Your task to perform on an android device: What's the weather going to be tomorrow? Image 0: 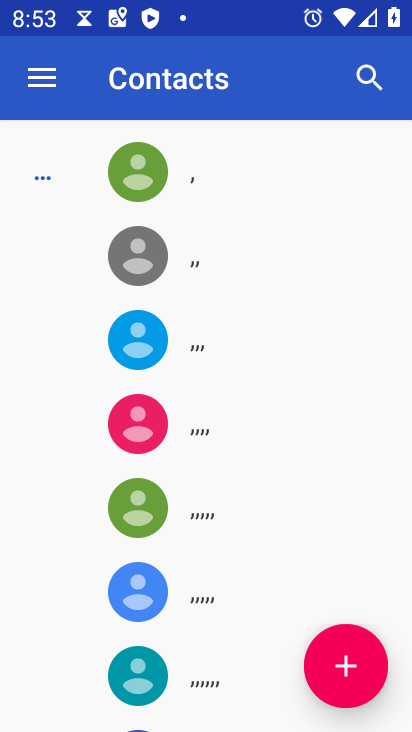
Step 0: press back button
Your task to perform on an android device: What's the weather going to be tomorrow? Image 1: 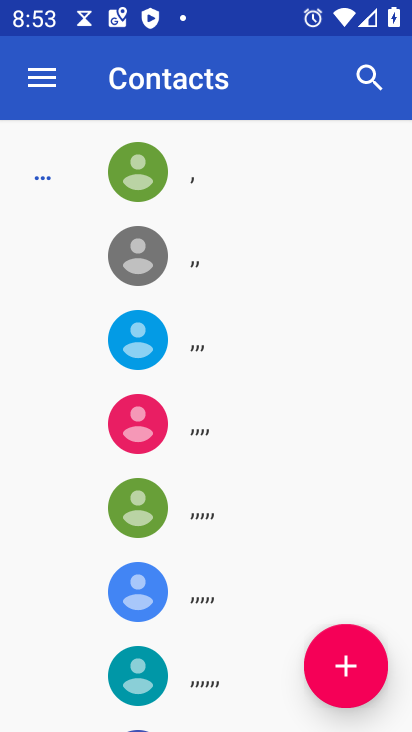
Step 1: press back button
Your task to perform on an android device: What's the weather going to be tomorrow? Image 2: 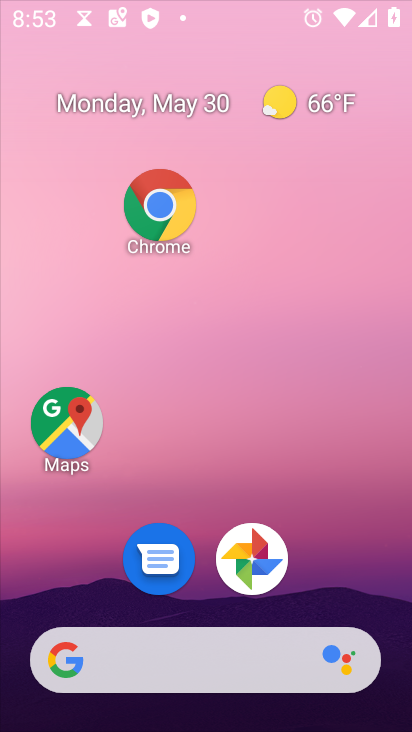
Step 2: press back button
Your task to perform on an android device: What's the weather going to be tomorrow? Image 3: 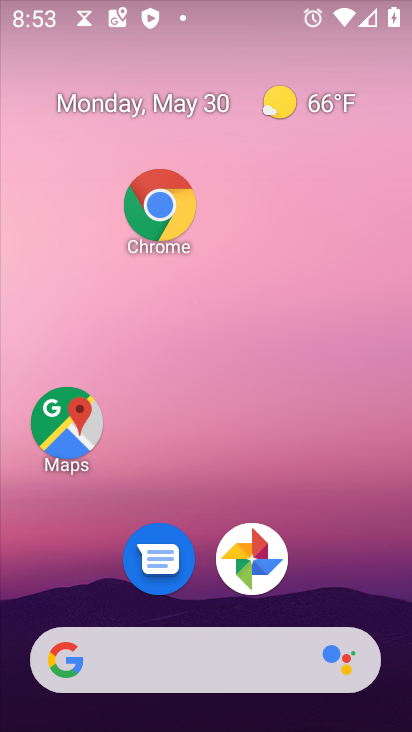
Step 3: press back button
Your task to perform on an android device: What's the weather going to be tomorrow? Image 4: 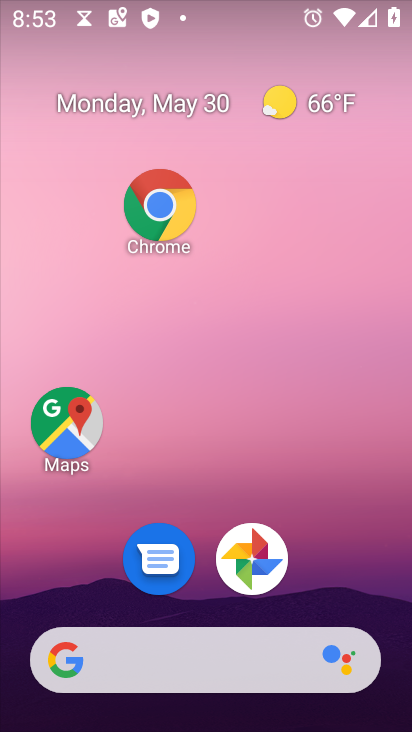
Step 4: drag from (68, 214) to (406, 470)
Your task to perform on an android device: What's the weather going to be tomorrow? Image 5: 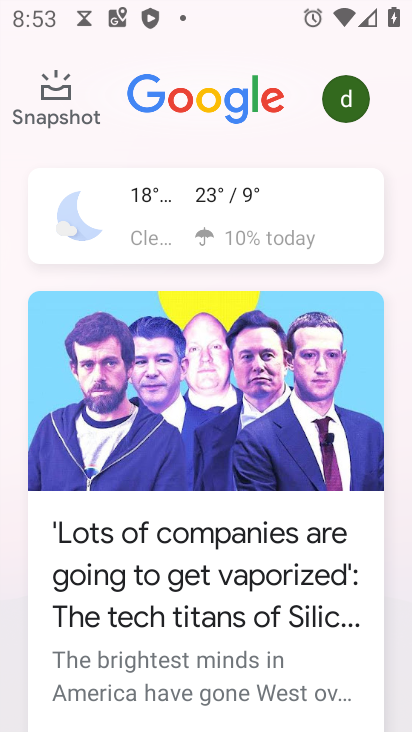
Step 5: click (190, 221)
Your task to perform on an android device: What's the weather going to be tomorrow? Image 6: 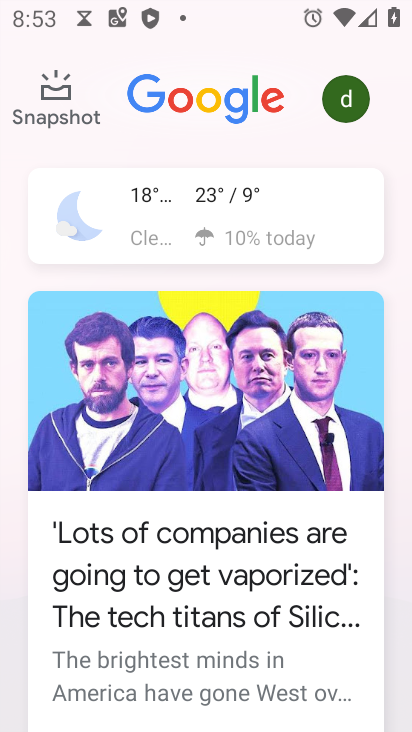
Step 6: click (189, 222)
Your task to perform on an android device: What's the weather going to be tomorrow? Image 7: 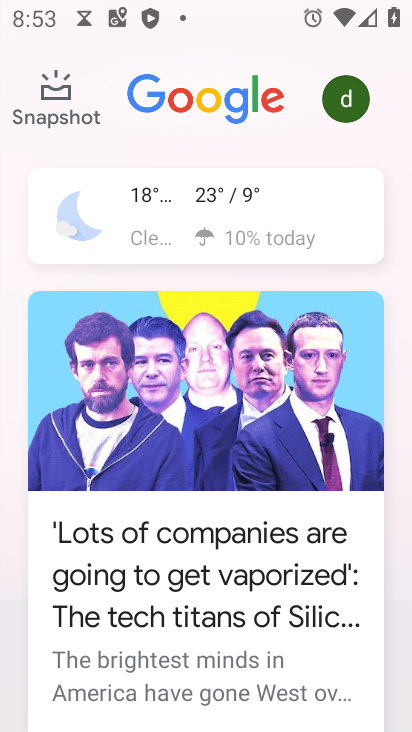
Step 7: click (197, 225)
Your task to perform on an android device: What's the weather going to be tomorrow? Image 8: 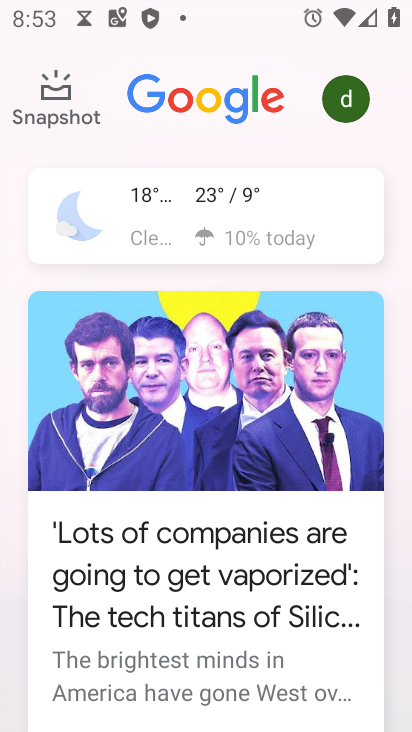
Step 8: click (202, 223)
Your task to perform on an android device: What's the weather going to be tomorrow? Image 9: 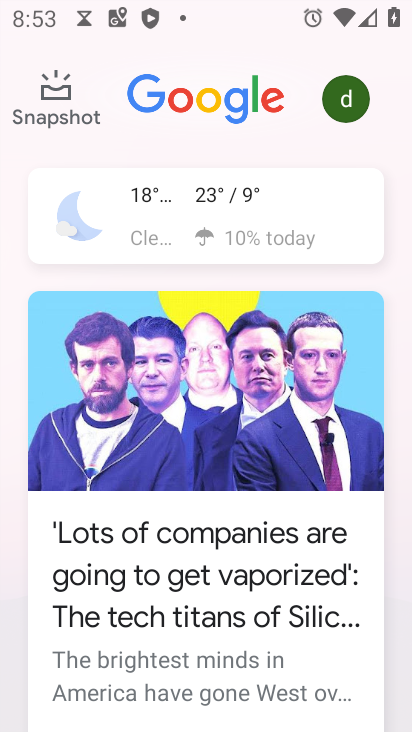
Step 9: click (202, 223)
Your task to perform on an android device: What's the weather going to be tomorrow? Image 10: 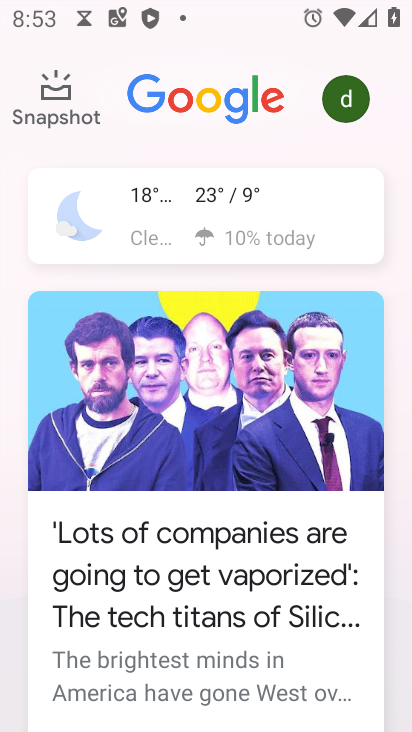
Step 10: click (202, 223)
Your task to perform on an android device: What's the weather going to be tomorrow? Image 11: 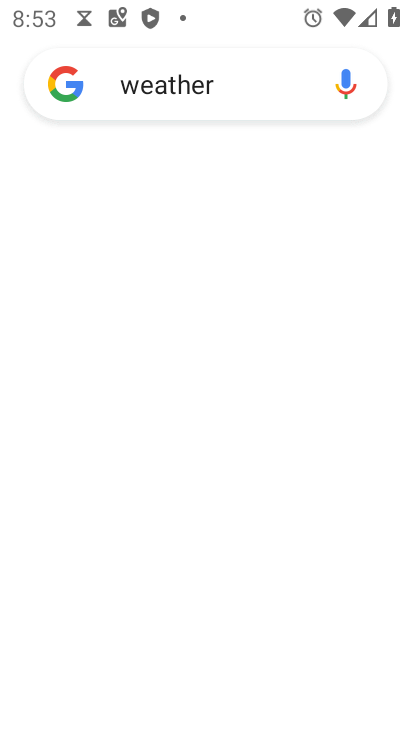
Step 11: click (205, 221)
Your task to perform on an android device: What's the weather going to be tomorrow? Image 12: 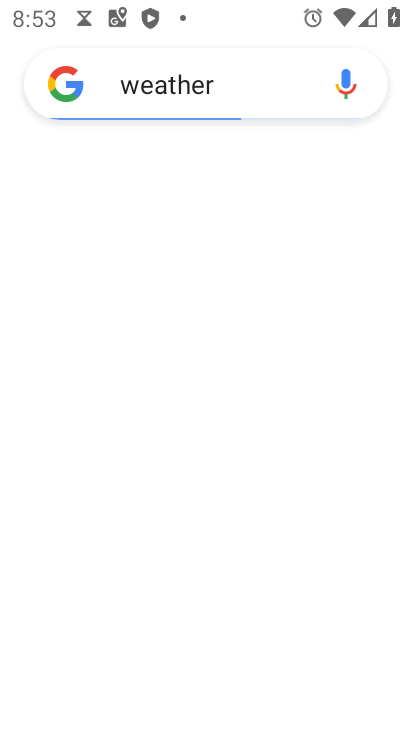
Step 12: click (205, 221)
Your task to perform on an android device: What's the weather going to be tomorrow? Image 13: 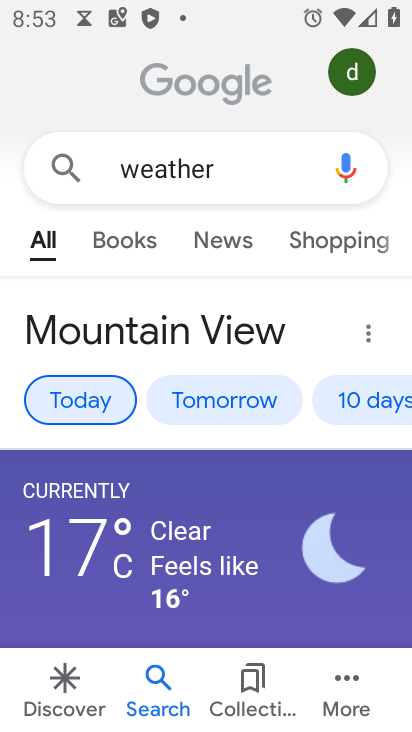
Step 13: click (219, 401)
Your task to perform on an android device: What's the weather going to be tomorrow? Image 14: 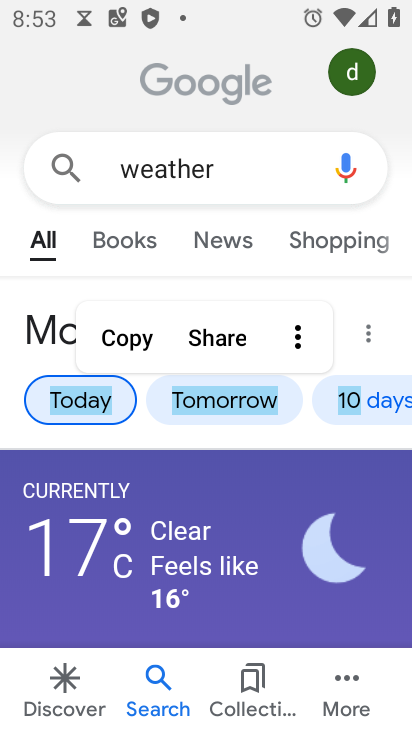
Step 14: click (226, 402)
Your task to perform on an android device: What's the weather going to be tomorrow? Image 15: 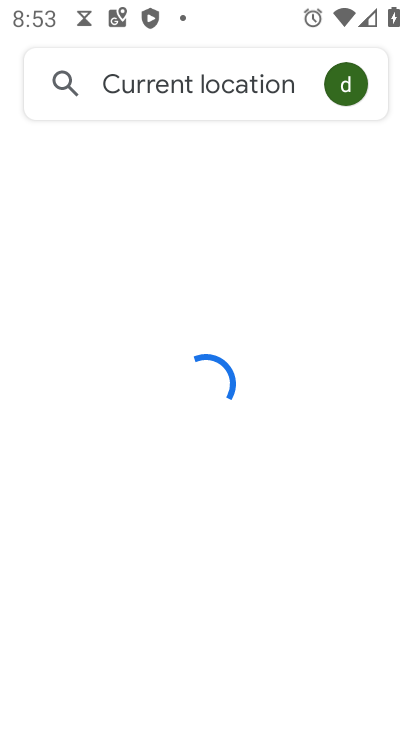
Step 15: click (233, 395)
Your task to perform on an android device: What's the weather going to be tomorrow? Image 16: 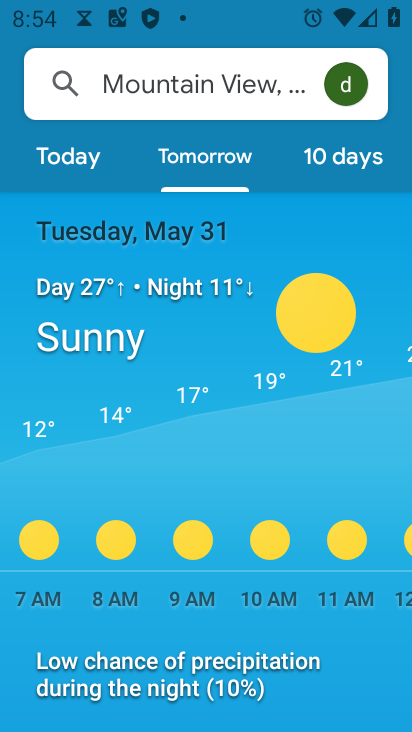
Step 16: click (204, 159)
Your task to perform on an android device: What's the weather going to be tomorrow? Image 17: 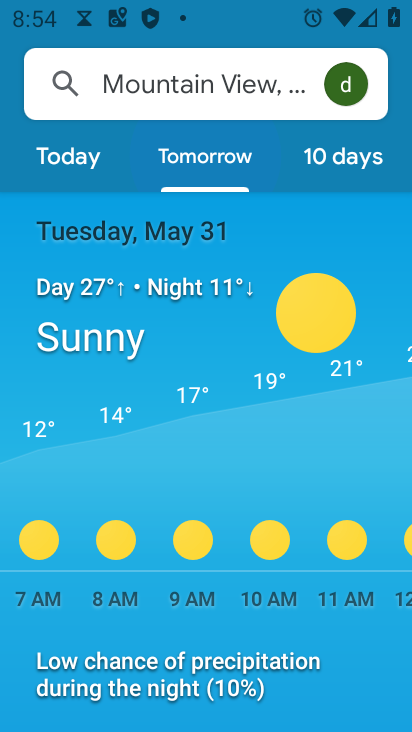
Step 17: click (204, 159)
Your task to perform on an android device: What's the weather going to be tomorrow? Image 18: 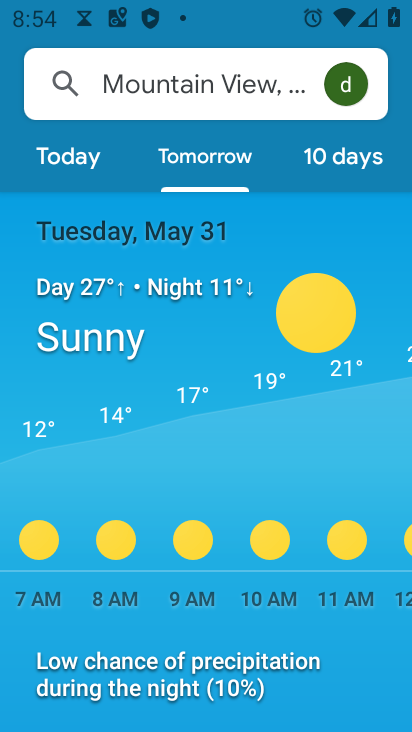
Step 18: click (205, 159)
Your task to perform on an android device: What's the weather going to be tomorrow? Image 19: 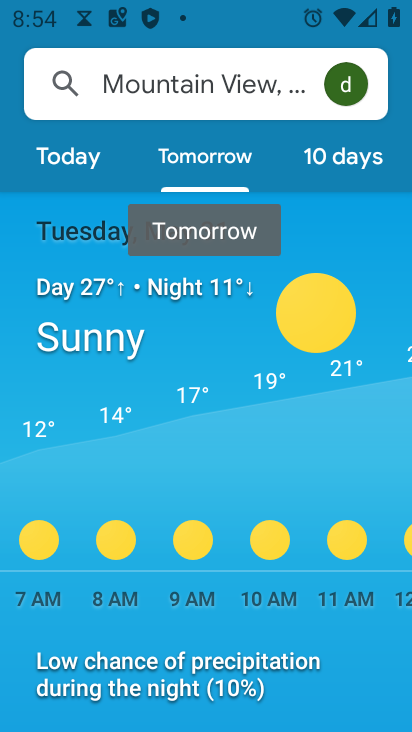
Step 19: click (61, 160)
Your task to perform on an android device: What's the weather going to be tomorrow? Image 20: 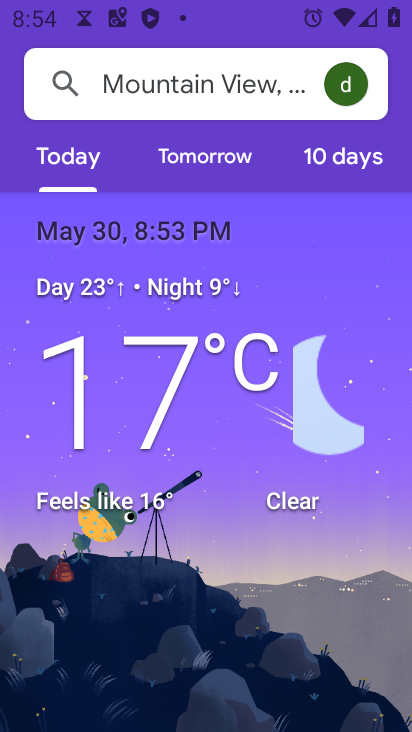
Step 20: task complete